Your task to perform on an android device: turn on showing notifications on the lock screen Image 0: 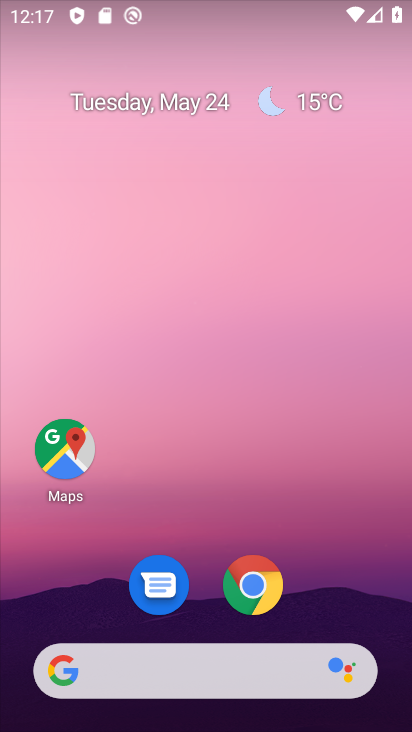
Step 0: drag from (273, 485) to (291, 19)
Your task to perform on an android device: turn on showing notifications on the lock screen Image 1: 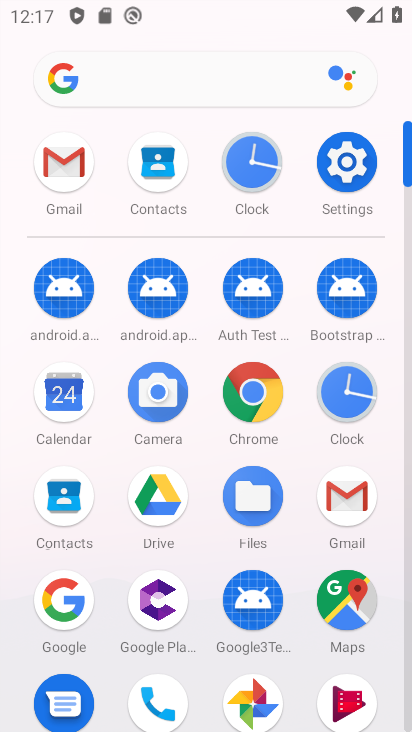
Step 1: click (355, 169)
Your task to perform on an android device: turn on showing notifications on the lock screen Image 2: 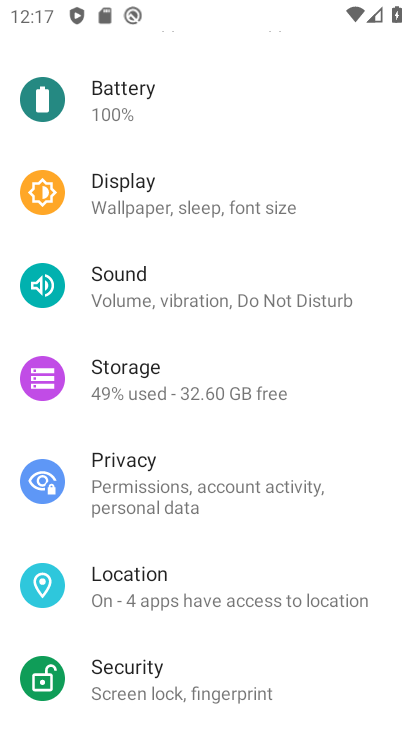
Step 2: drag from (252, 360) to (241, 649)
Your task to perform on an android device: turn on showing notifications on the lock screen Image 3: 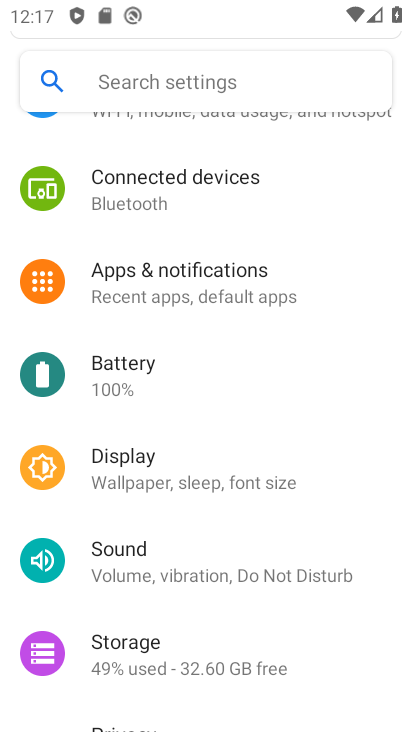
Step 3: click (246, 292)
Your task to perform on an android device: turn on showing notifications on the lock screen Image 4: 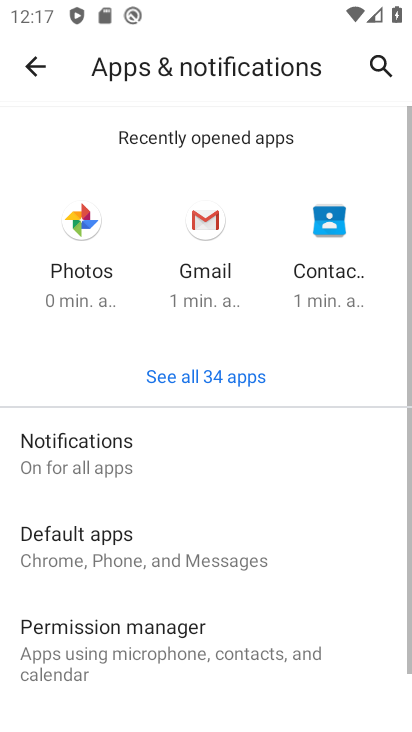
Step 4: click (195, 461)
Your task to perform on an android device: turn on showing notifications on the lock screen Image 5: 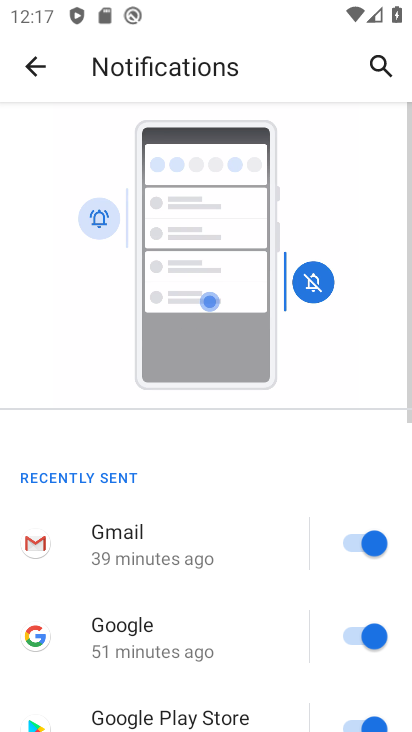
Step 5: task complete